Your task to perform on an android device: toggle javascript in the chrome app Image 0: 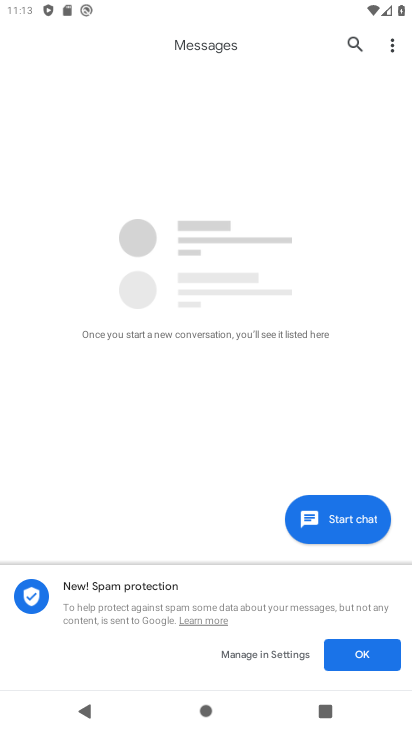
Step 0: press home button
Your task to perform on an android device: toggle javascript in the chrome app Image 1: 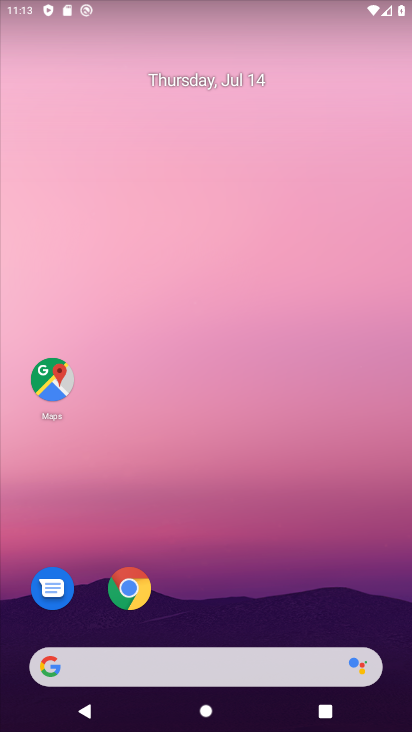
Step 1: drag from (238, 623) to (151, 126)
Your task to perform on an android device: toggle javascript in the chrome app Image 2: 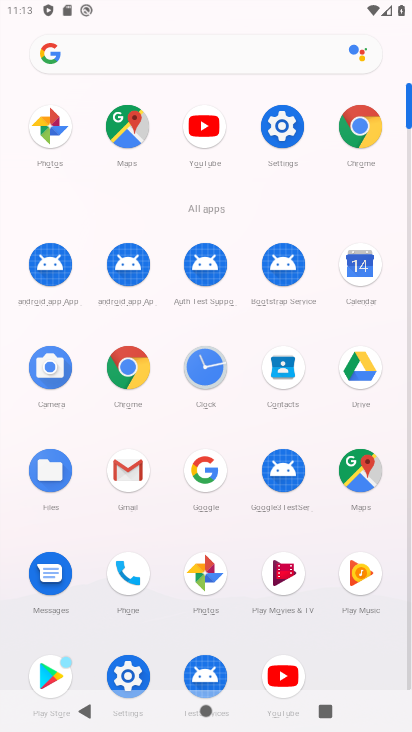
Step 2: click (134, 370)
Your task to perform on an android device: toggle javascript in the chrome app Image 3: 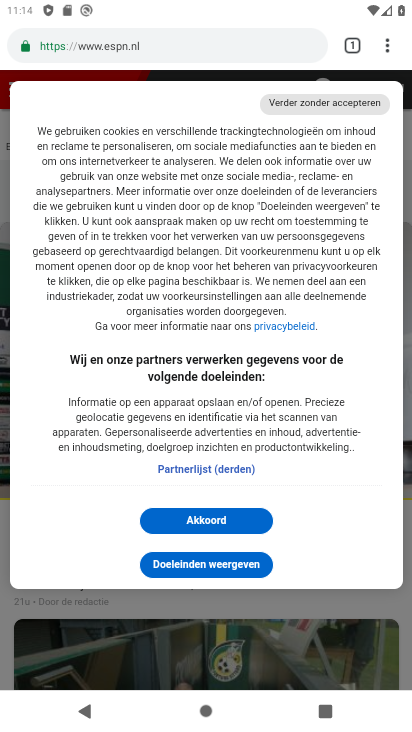
Step 3: click (386, 52)
Your task to perform on an android device: toggle javascript in the chrome app Image 4: 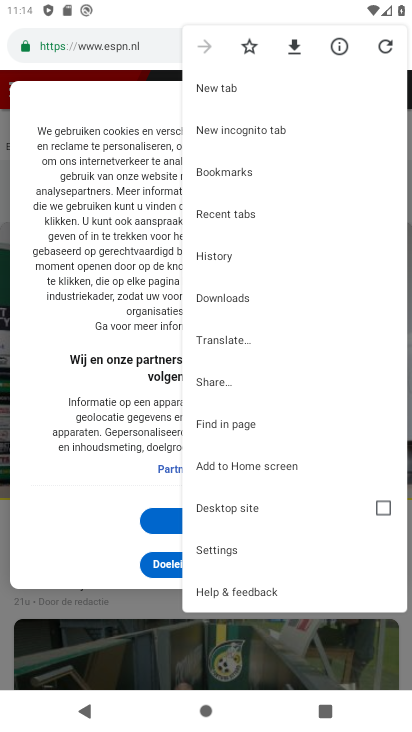
Step 4: click (221, 548)
Your task to perform on an android device: toggle javascript in the chrome app Image 5: 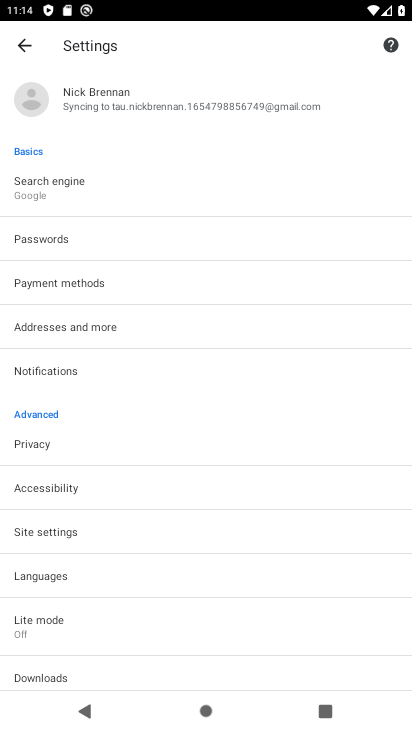
Step 5: click (66, 533)
Your task to perform on an android device: toggle javascript in the chrome app Image 6: 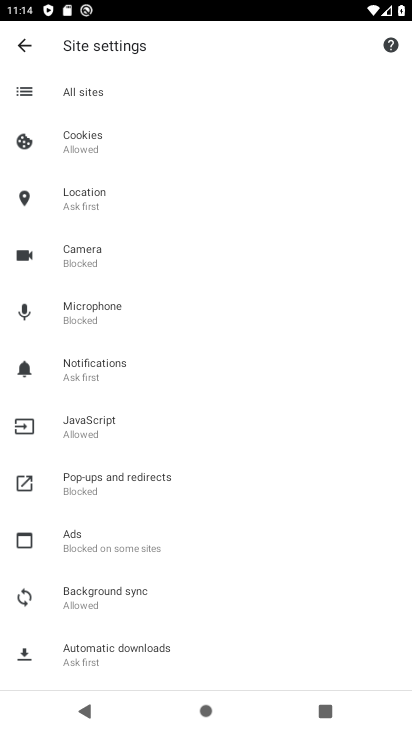
Step 6: click (100, 421)
Your task to perform on an android device: toggle javascript in the chrome app Image 7: 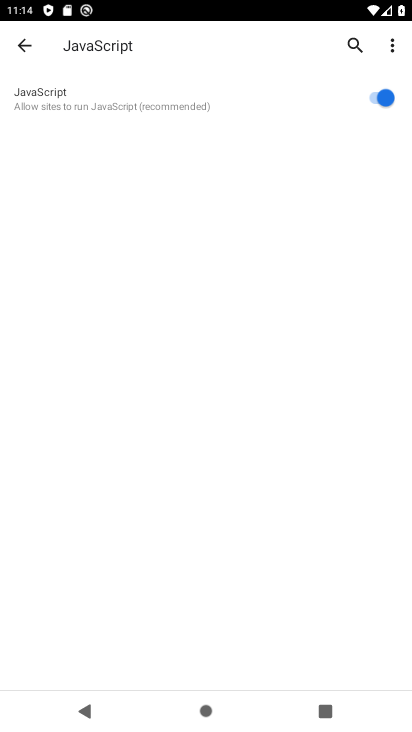
Step 7: click (354, 101)
Your task to perform on an android device: toggle javascript in the chrome app Image 8: 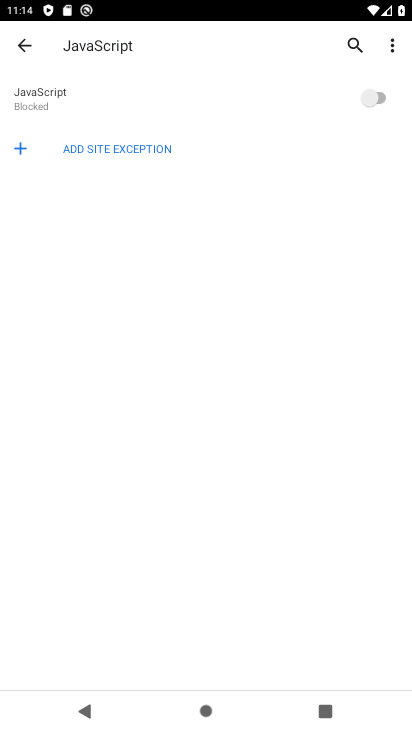
Step 8: task complete